Your task to perform on an android device: Find coffee shops on Maps Image 0: 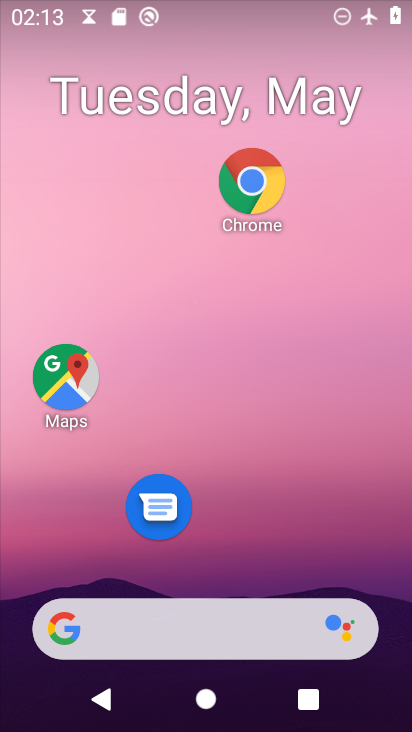
Step 0: drag from (272, 490) to (307, 252)
Your task to perform on an android device: Find coffee shops on Maps Image 1: 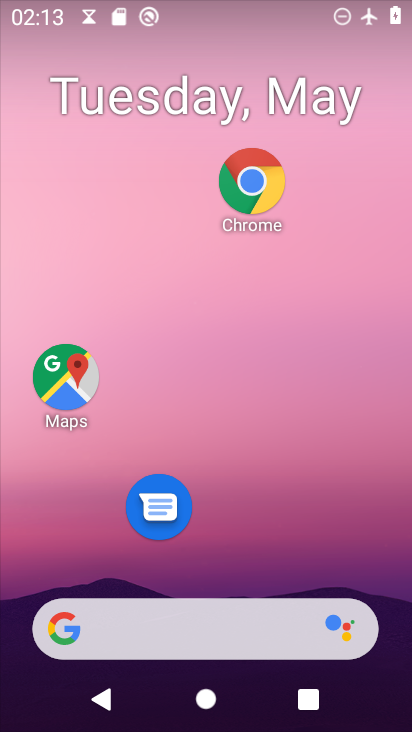
Step 1: drag from (315, 524) to (332, 317)
Your task to perform on an android device: Find coffee shops on Maps Image 2: 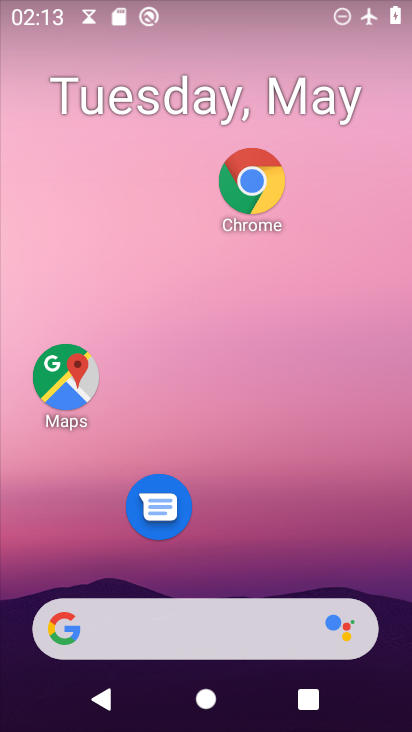
Step 2: click (60, 356)
Your task to perform on an android device: Find coffee shops on Maps Image 3: 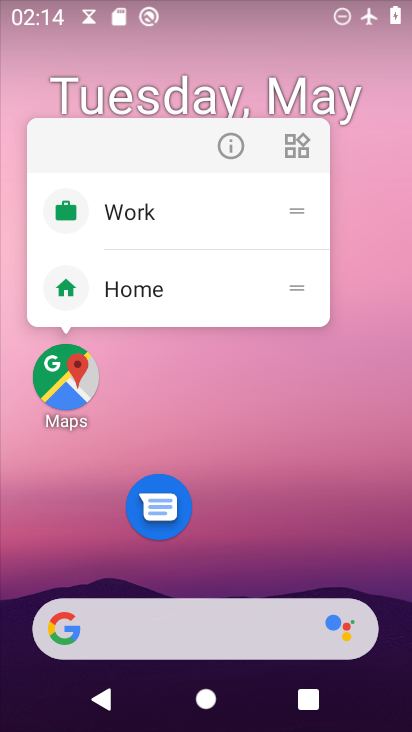
Step 3: click (64, 365)
Your task to perform on an android device: Find coffee shops on Maps Image 4: 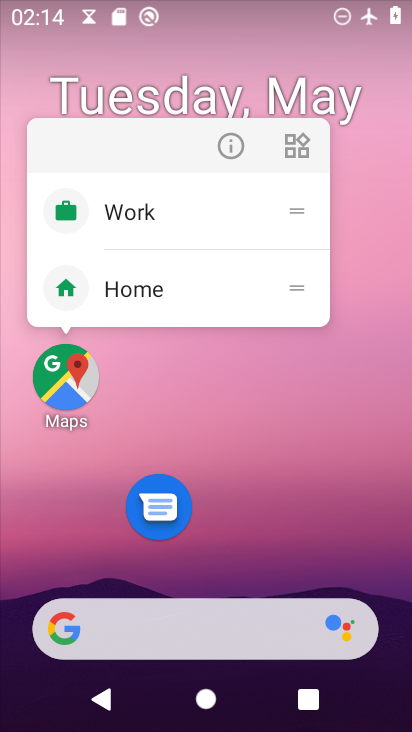
Step 4: click (65, 366)
Your task to perform on an android device: Find coffee shops on Maps Image 5: 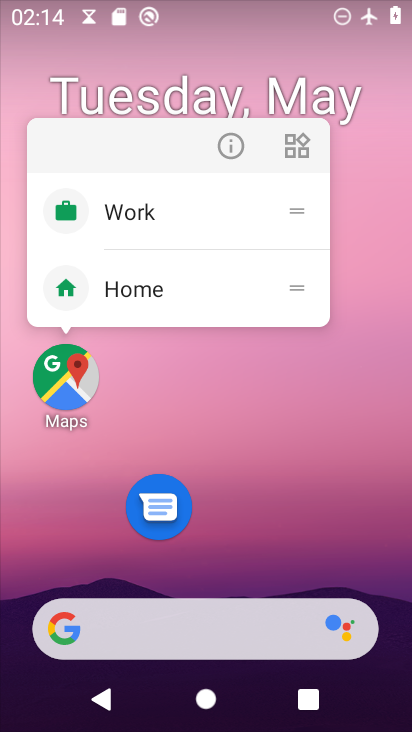
Step 5: click (65, 365)
Your task to perform on an android device: Find coffee shops on Maps Image 6: 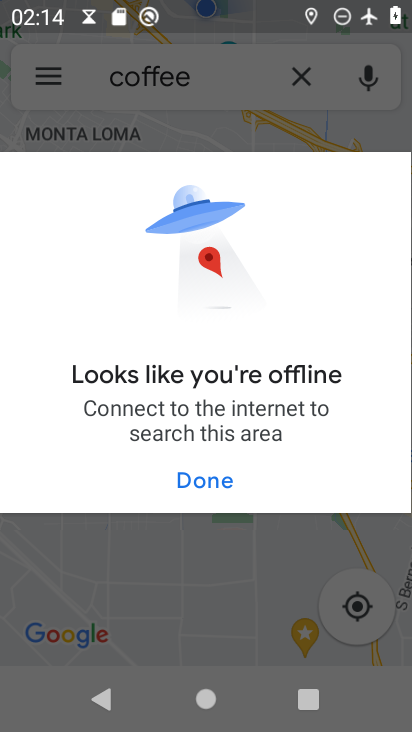
Step 6: click (197, 490)
Your task to perform on an android device: Find coffee shops on Maps Image 7: 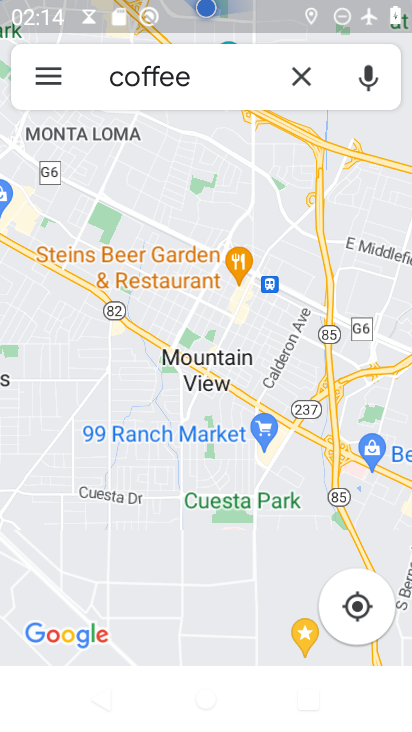
Step 7: task complete